Your task to perform on an android device: turn off airplane mode Image 0: 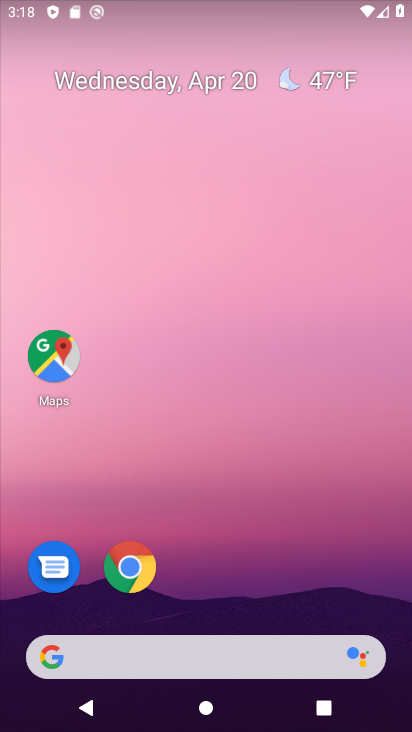
Step 0: drag from (244, 13) to (237, 554)
Your task to perform on an android device: turn off airplane mode Image 1: 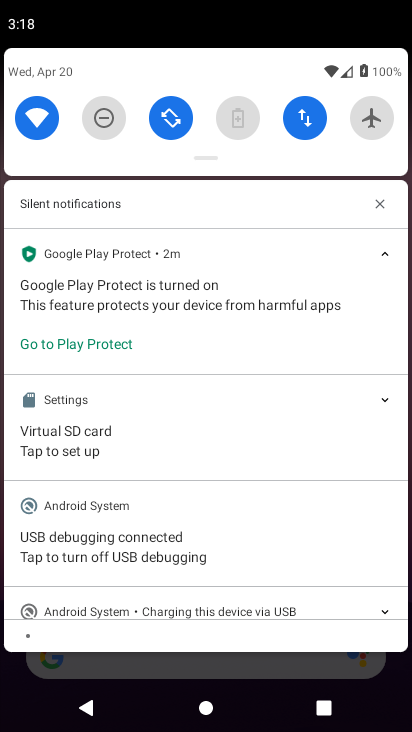
Step 1: task complete